Your task to perform on an android device: check android version Image 0: 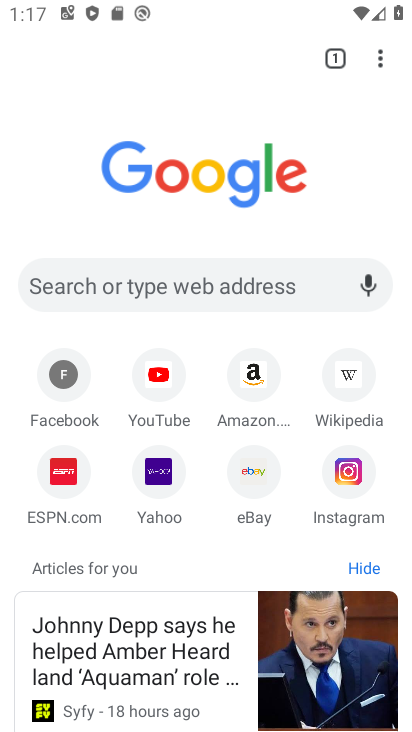
Step 0: drag from (229, 724) to (220, 96)
Your task to perform on an android device: check android version Image 1: 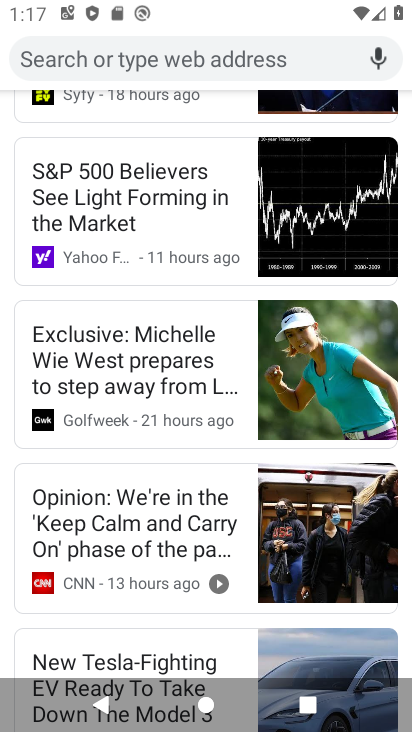
Step 1: press home button
Your task to perform on an android device: check android version Image 2: 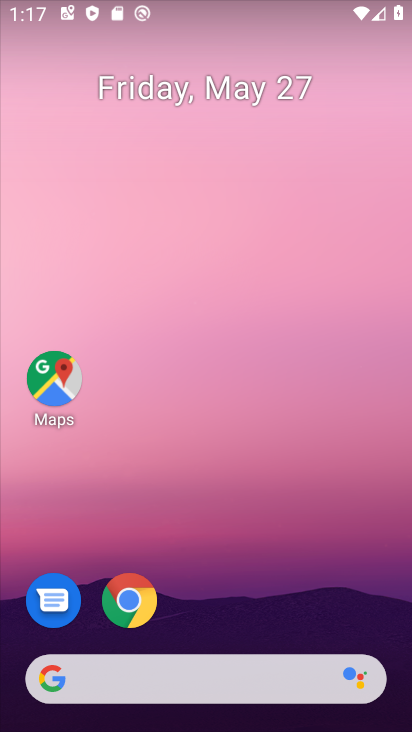
Step 2: drag from (216, 729) to (206, 100)
Your task to perform on an android device: check android version Image 3: 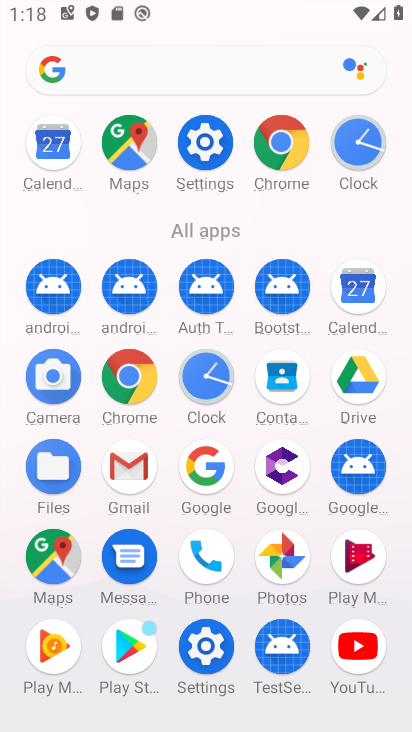
Step 3: click (210, 147)
Your task to perform on an android device: check android version Image 4: 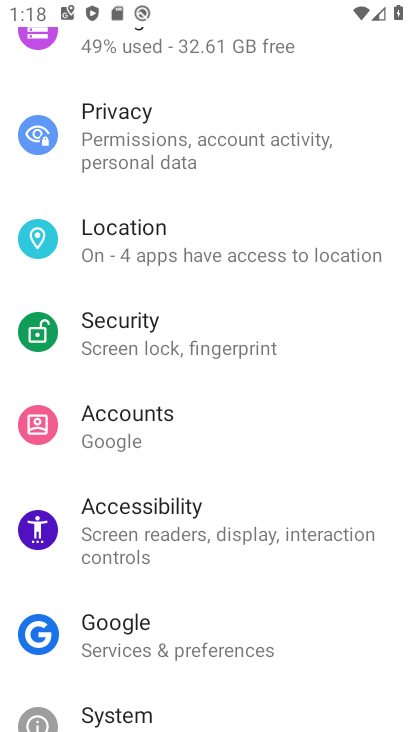
Step 4: drag from (227, 687) to (226, 251)
Your task to perform on an android device: check android version Image 5: 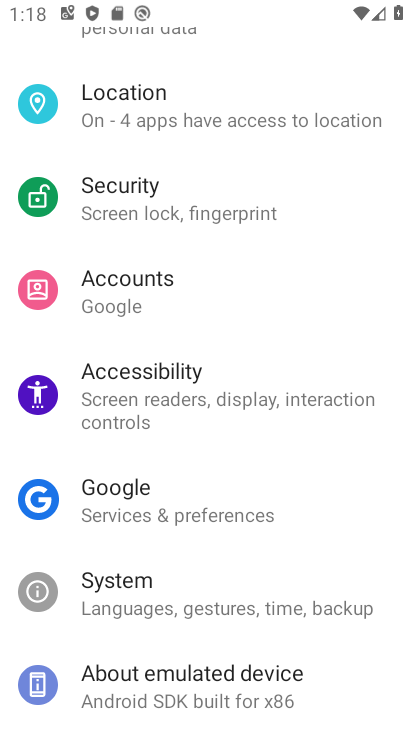
Step 5: click (198, 681)
Your task to perform on an android device: check android version Image 6: 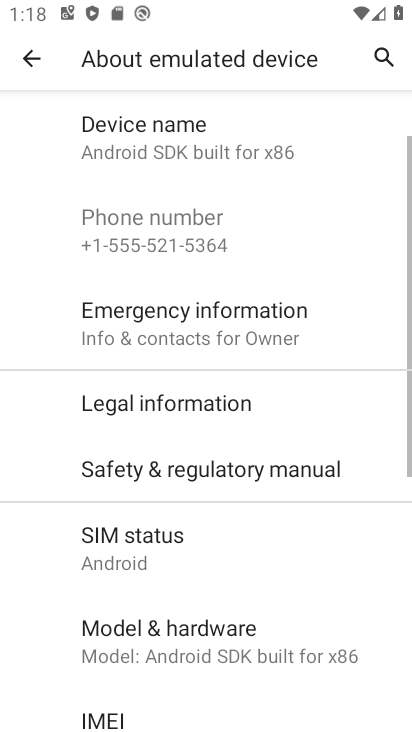
Step 6: drag from (218, 681) to (236, 275)
Your task to perform on an android device: check android version Image 7: 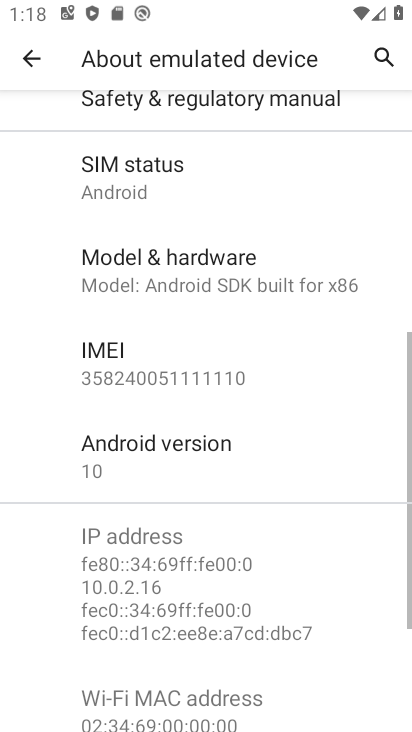
Step 7: click (142, 445)
Your task to perform on an android device: check android version Image 8: 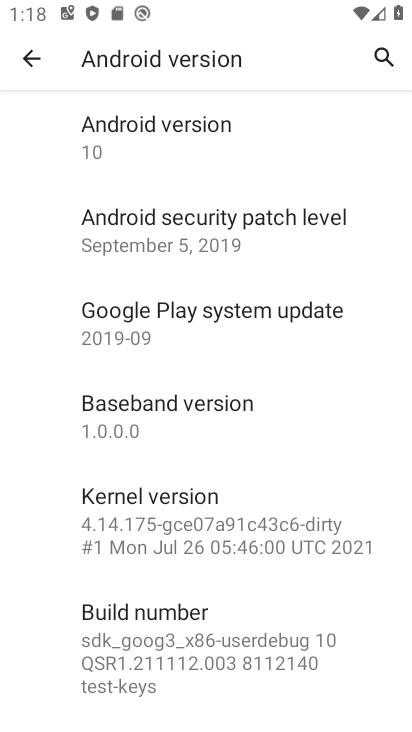
Step 8: task complete